Your task to perform on an android device: Open calendar and show me the first week of next month Image 0: 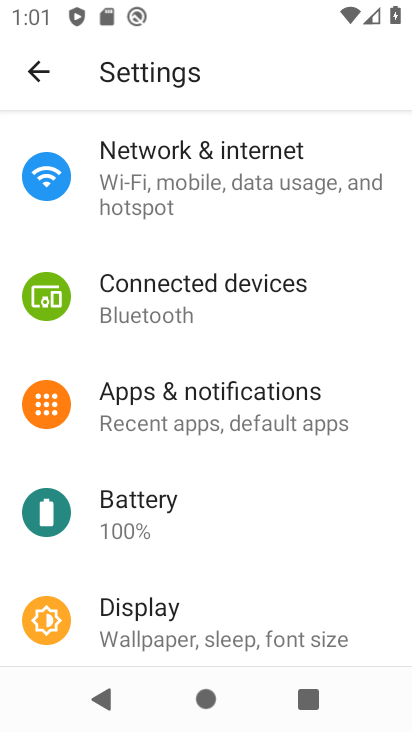
Step 0: press home button
Your task to perform on an android device: Open calendar and show me the first week of next month Image 1: 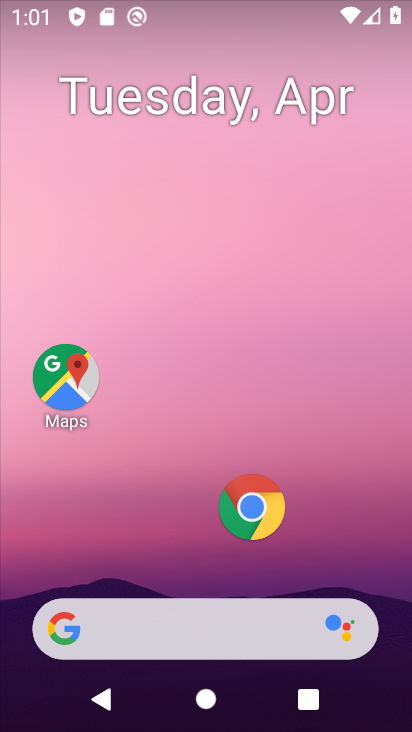
Step 1: drag from (179, 418) to (259, 14)
Your task to perform on an android device: Open calendar and show me the first week of next month Image 2: 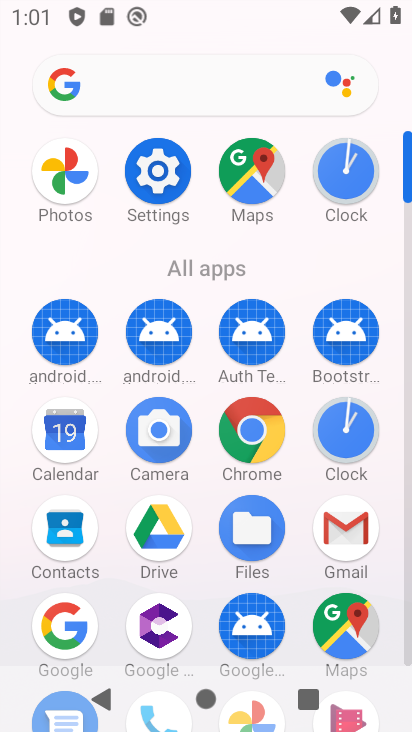
Step 2: click (59, 444)
Your task to perform on an android device: Open calendar and show me the first week of next month Image 3: 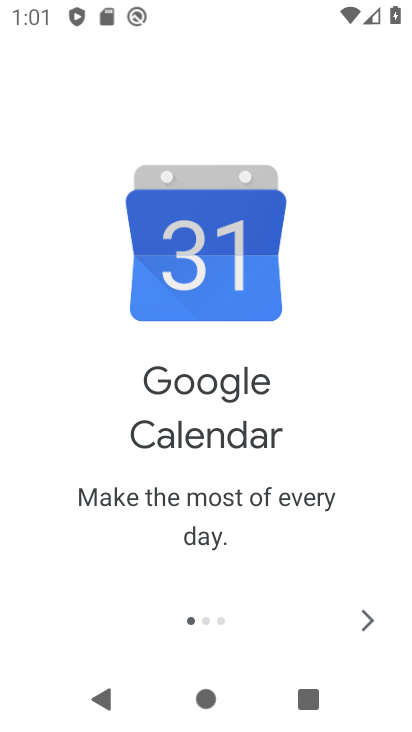
Step 3: click (368, 623)
Your task to perform on an android device: Open calendar and show me the first week of next month Image 4: 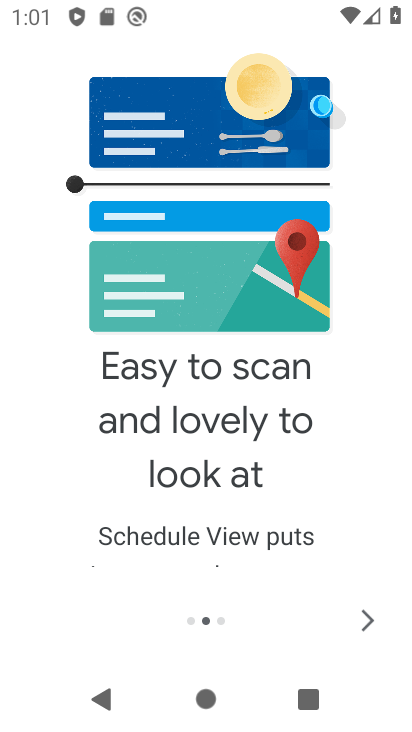
Step 4: click (368, 623)
Your task to perform on an android device: Open calendar and show me the first week of next month Image 5: 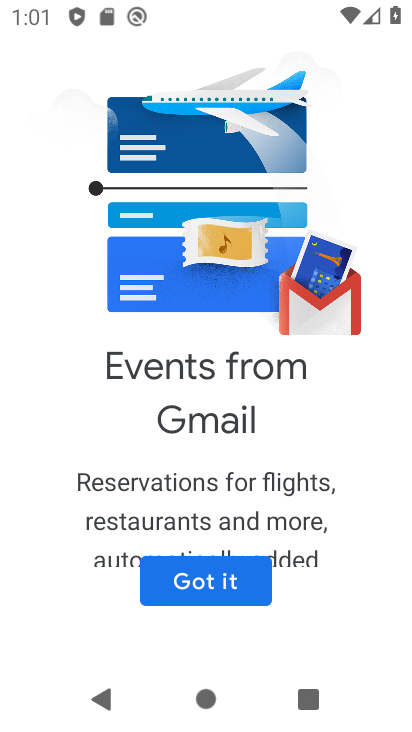
Step 5: click (233, 580)
Your task to perform on an android device: Open calendar and show me the first week of next month Image 6: 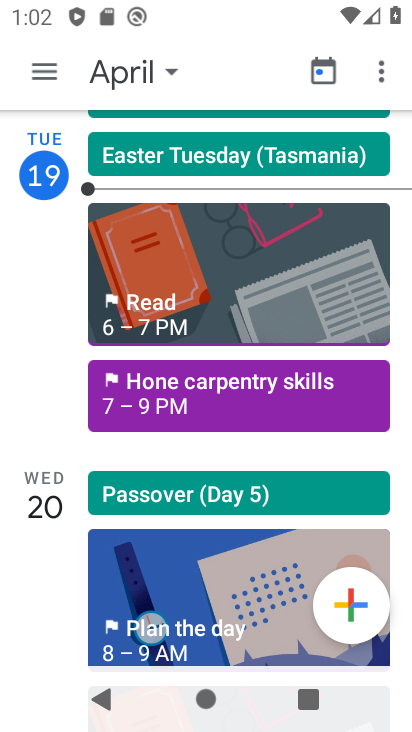
Step 6: click (172, 72)
Your task to perform on an android device: Open calendar and show me the first week of next month Image 7: 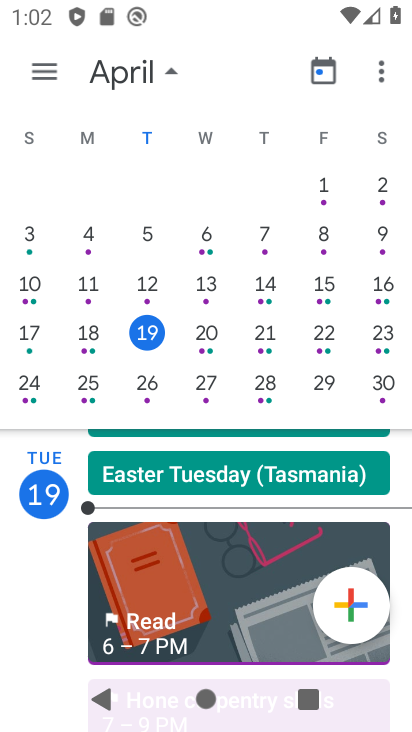
Step 7: drag from (332, 314) to (2, 189)
Your task to perform on an android device: Open calendar and show me the first week of next month Image 8: 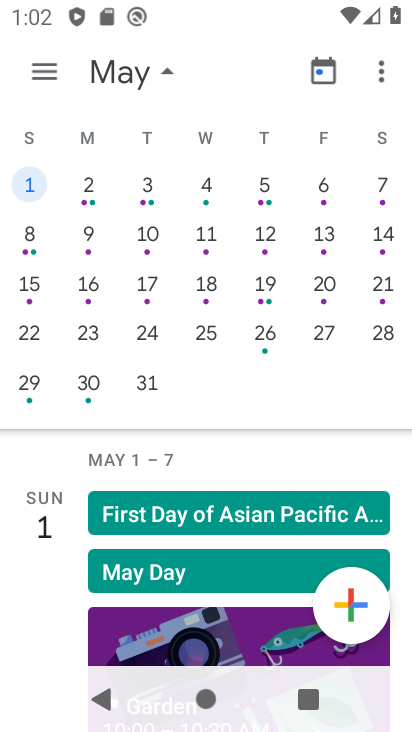
Step 8: click (37, 80)
Your task to perform on an android device: Open calendar and show me the first week of next month Image 9: 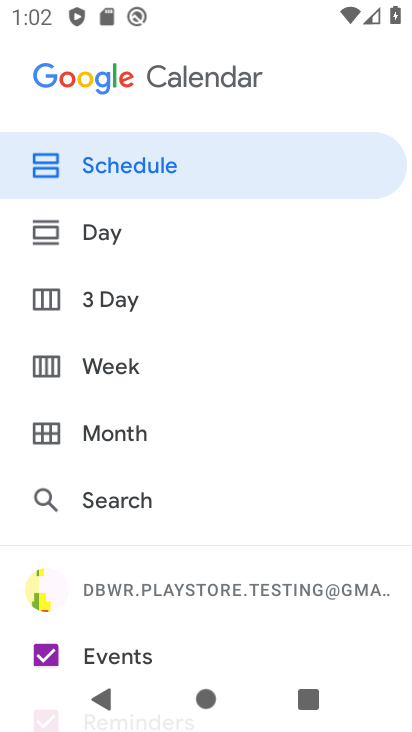
Step 9: click (119, 377)
Your task to perform on an android device: Open calendar and show me the first week of next month Image 10: 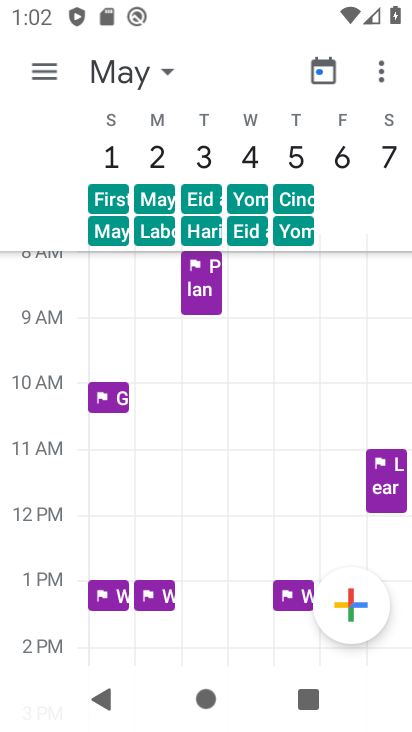
Step 10: task complete